Your task to perform on an android device: set default search engine in the chrome app Image 0: 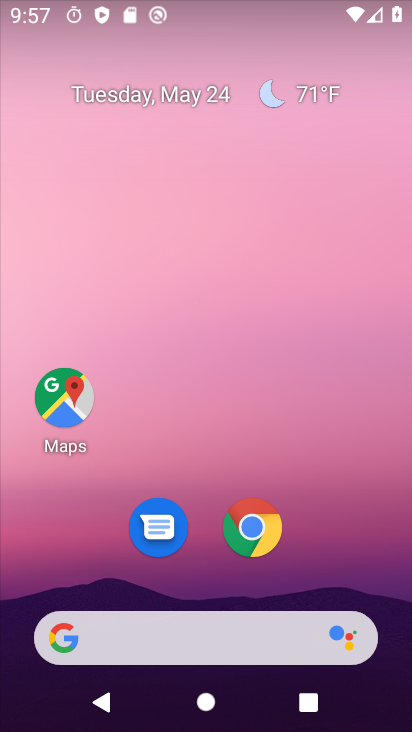
Step 0: click (251, 528)
Your task to perform on an android device: set default search engine in the chrome app Image 1: 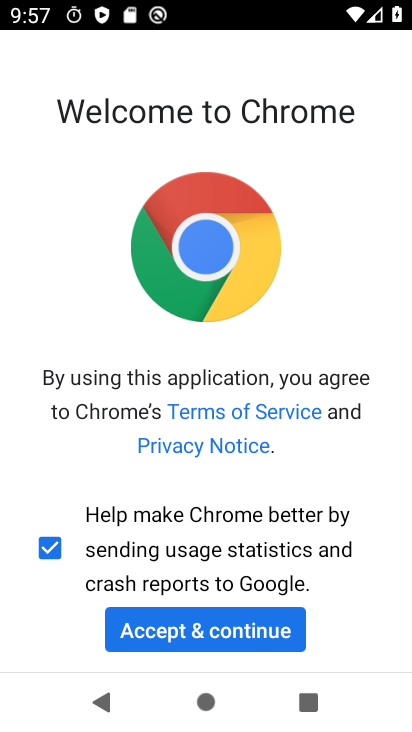
Step 1: click (202, 633)
Your task to perform on an android device: set default search engine in the chrome app Image 2: 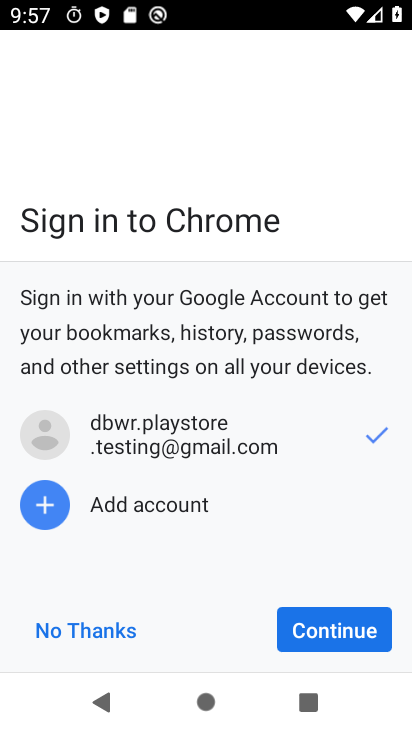
Step 2: click (329, 626)
Your task to perform on an android device: set default search engine in the chrome app Image 3: 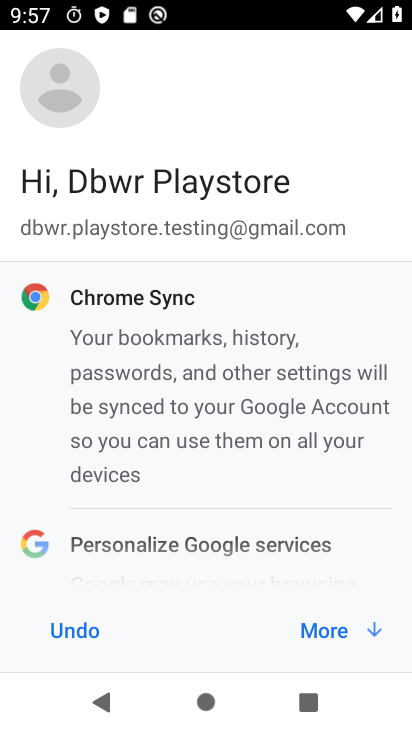
Step 3: click (329, 626)
Your task to perform on an android device: set default search engine in the chrome app Image 4: 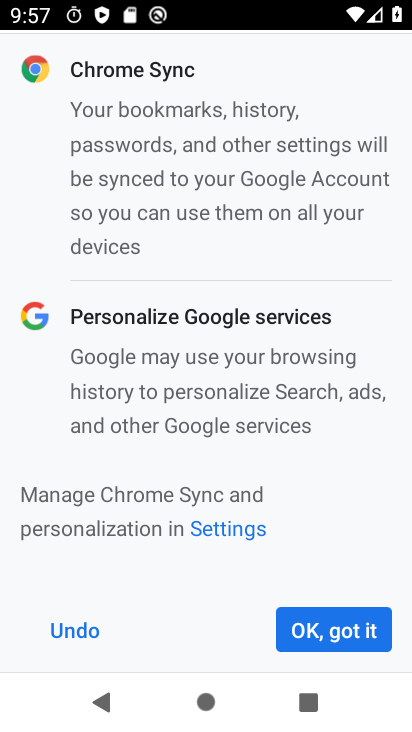
Step 4: click (329, 626)
Your task to perform on an android device: set default search engine in the chrome app Image 5: 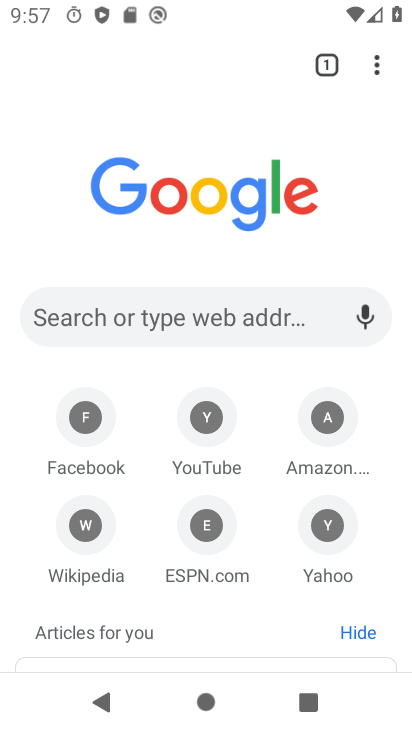
Step 5: click (371, 70)
Your task to perform on an android device: set default search engine in the chrome app Image 6: 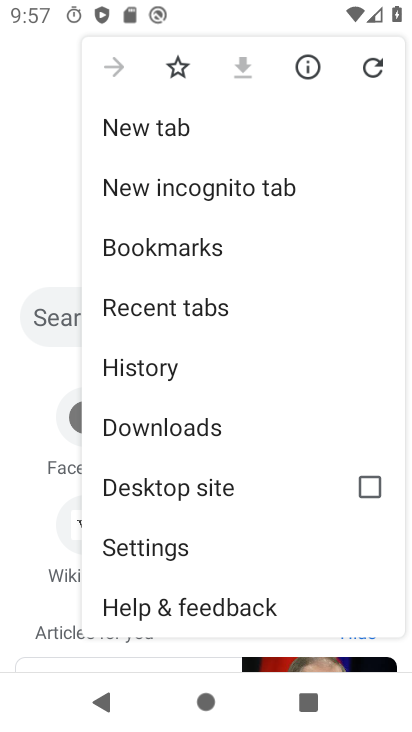
Step 6: click (200, 545)
Your task to perform on an android device: set default search engine in the chrome app Image 7: 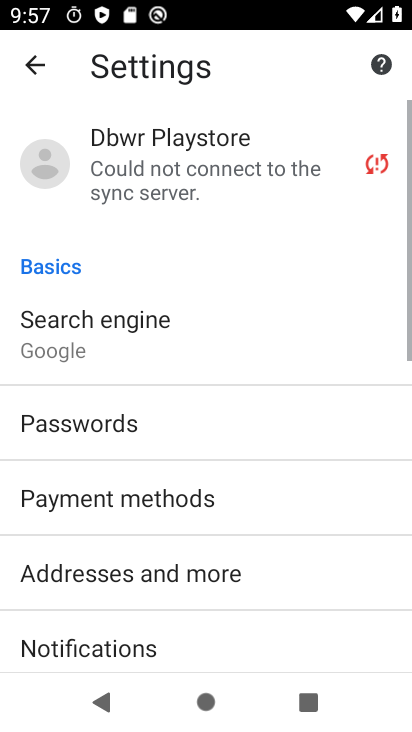
Step 7: click (132, 358)
Your task to perform on an android device: set default search engine in the chrome app Image 8: 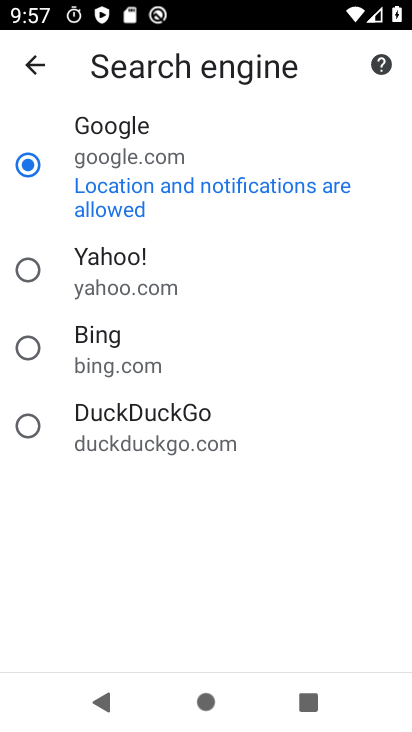
Step 8: click (23, 277)
Your task to perform on an android device: set default search engine in the chrome app Image 9: 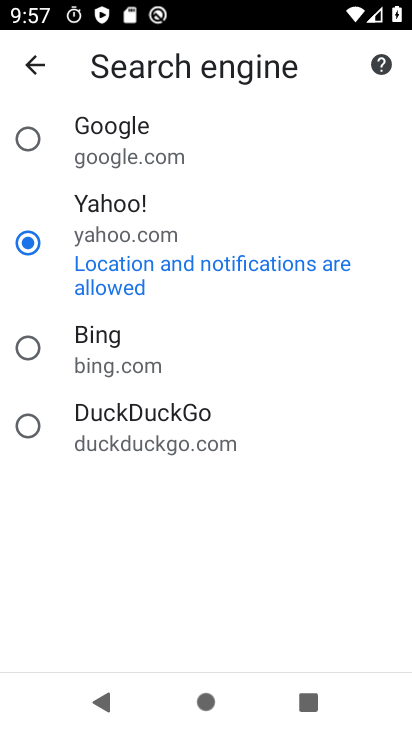
Step 9: task complete